Your task to perform on an android device: Open maps Image 0: 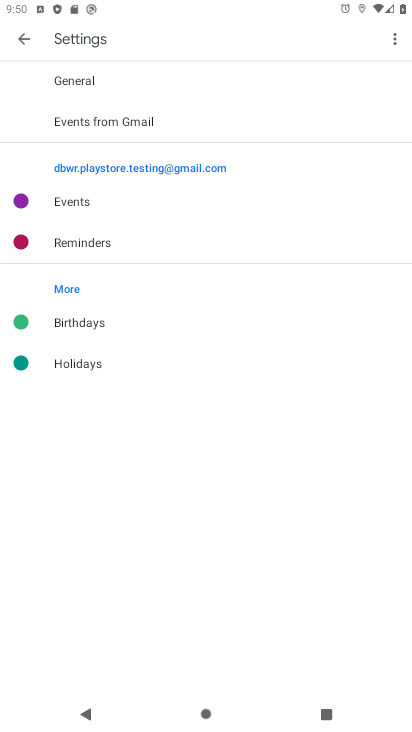
Step 0: press home button
Your task to perform on an android device: Open maps Image 1: 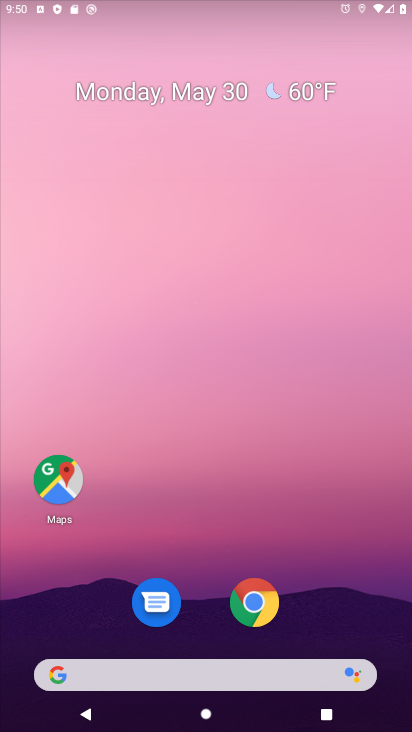
Step 1: click (53, 494)
Your task to perform on an android device: Open maps Image 2: 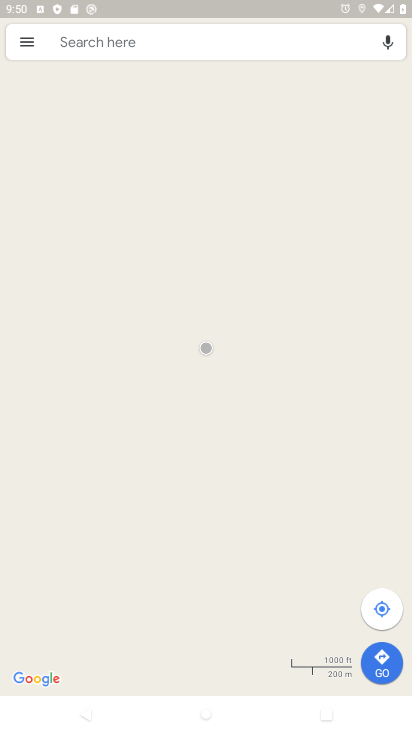
Step 2: task complete